Your task to perform on an android device: Open Google Chrome and click the shortcut for Amazon.com Image 0: 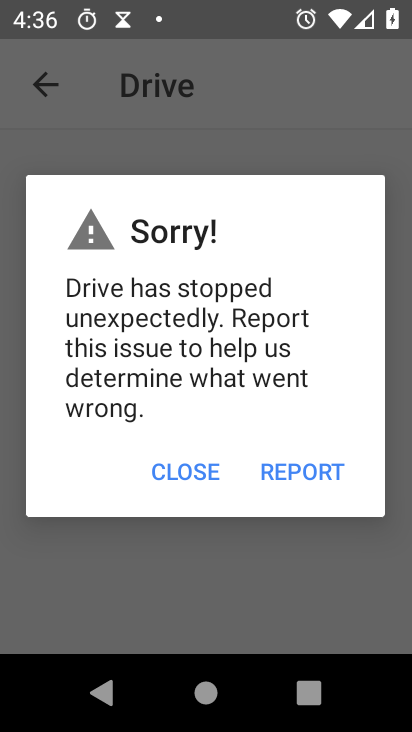
Step 0: press home button
Your task to perform on an android device: Open Google Chrome and click the shortcut for Amazon.com Image 1: 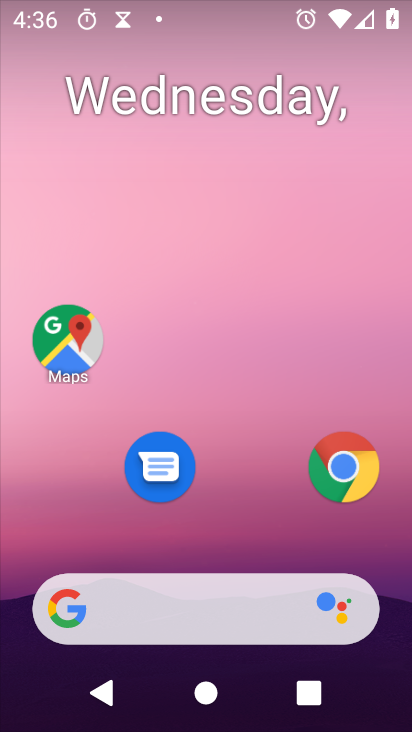
Step 1: click (337, 470)
Your task to perform on an android device: Open Google Chrome and click the shortcut for Amazon.com Image 2: 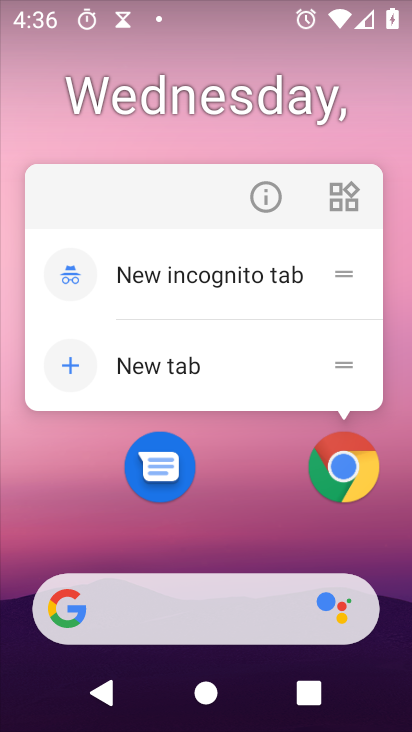
Step 2: click (337, 470)
Your task to perform on an android device: Open Google Chrome and click the shortcut for Amazon.com Image 3: 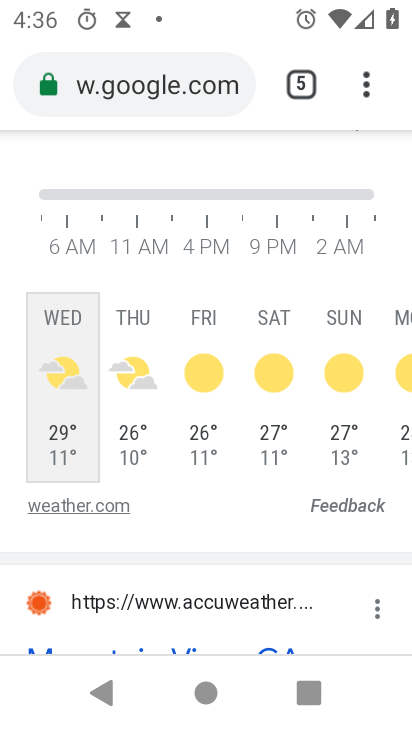
Step 3: click (289, 89)
Your task to perform on an android device: Open Google Chrome and click the shortcut for Amazon.com Image 4: 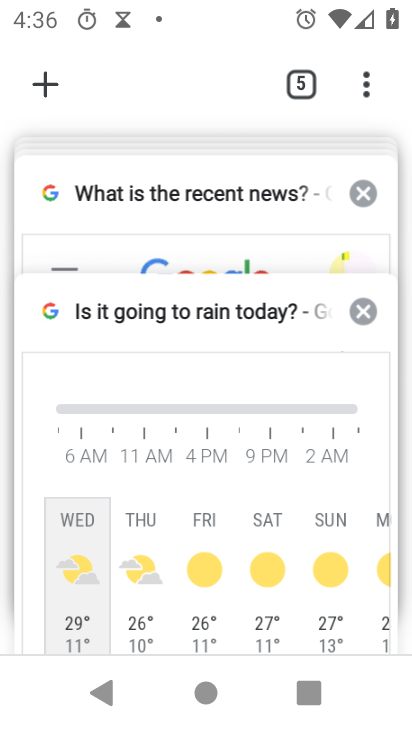
Step 4: click (46, 79)
Your task to perform on an android device: Open Google Chrome and click the shortcut for Amazon.com Image 5: 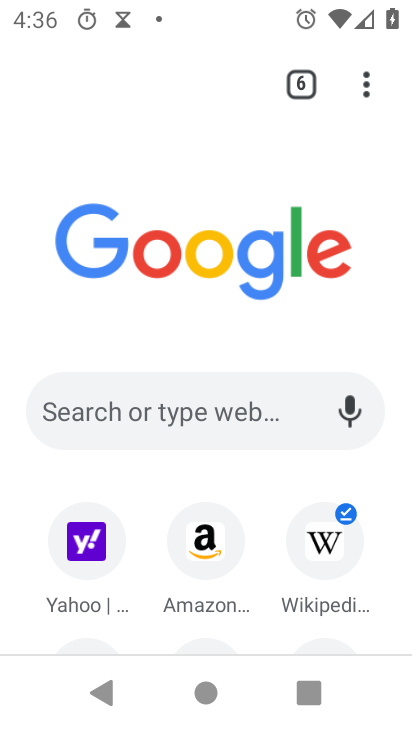
Step 5: click (224, 543)
Your task to perform on an android device: Open Google Chrome and click the shortcut for Amazon.com Image 6: 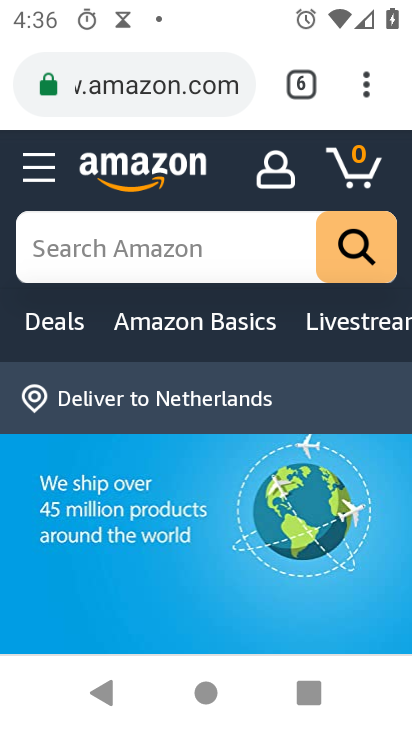
Step 6: task complete